Your task to perform on an android device: Go to accessibility settings Image 0: 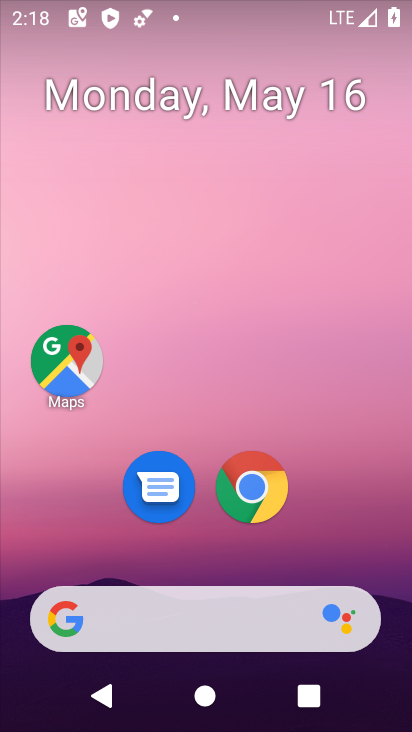
Step 0: drag from (322, 547) to (276, 20)
Your task to perform on an android device: Go to accessibility settings Image 1: 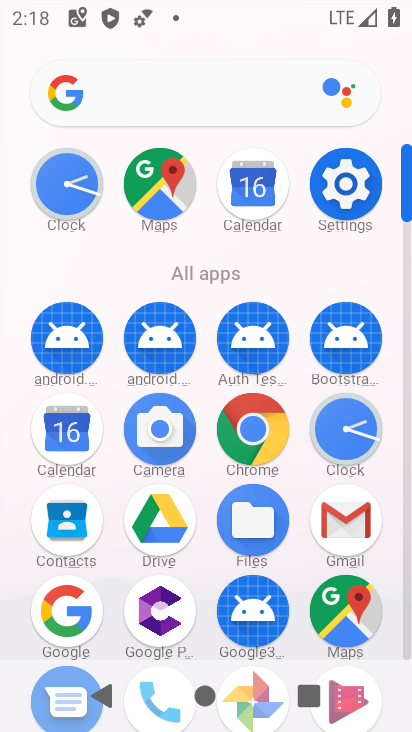
Step 1: click (346, 186)
Your task to perform on an android device: Go to accessibility settings Image 2: 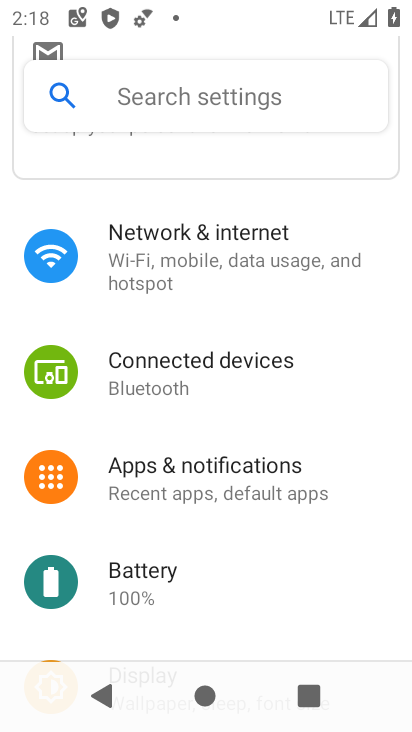
Step 2: drag from (208, 439) to (267, 339)
Your task to perform on an android device: Go to accessibility settings Image 3: 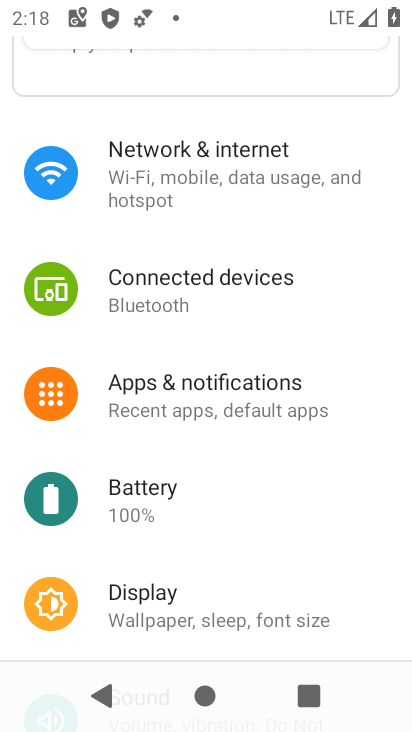
Step 3: drag from (164, 452) to (239, 352)
Your task to perform on an android device: Go to accessibility settings Image 4: 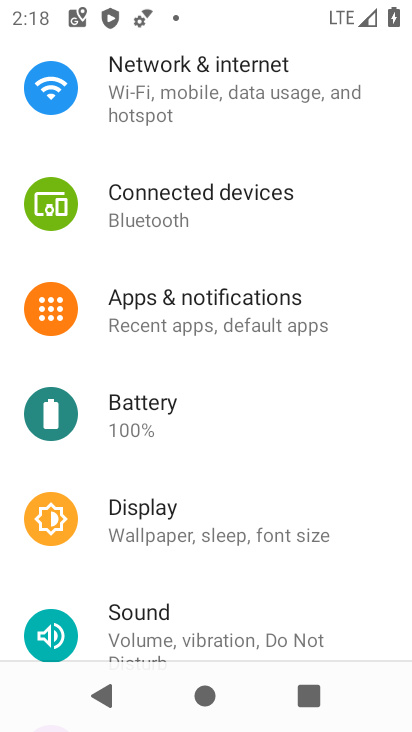
Step 4: drag from (144, 464) to (238, 345)
Your task to perform on an android device: Go to accessibility settings Image 5: 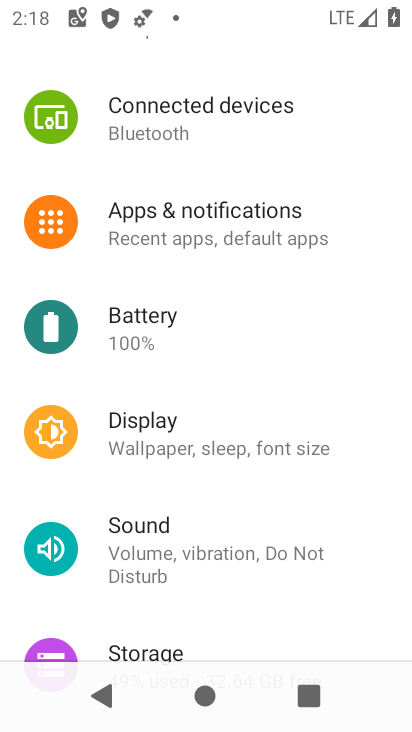
Step 5: drag from (147, 482) to (224, 375)
Your task to perform on an android device: Go to accessibility settings Image 6: 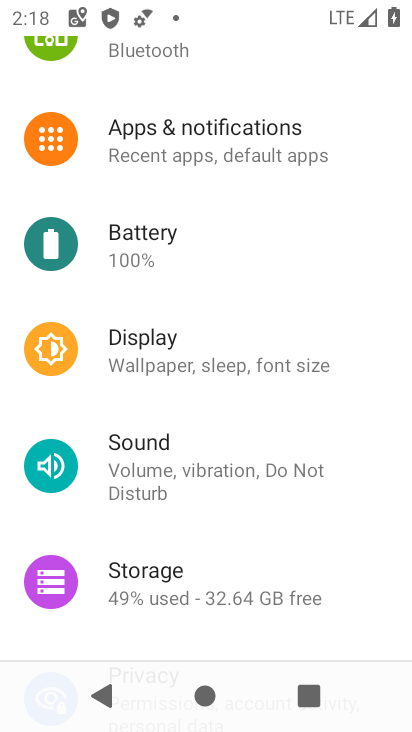
Step 6: drag from (143, 518) to (245, 377)
Your task to perform on an android device: Go to accessibility settings Image 7: 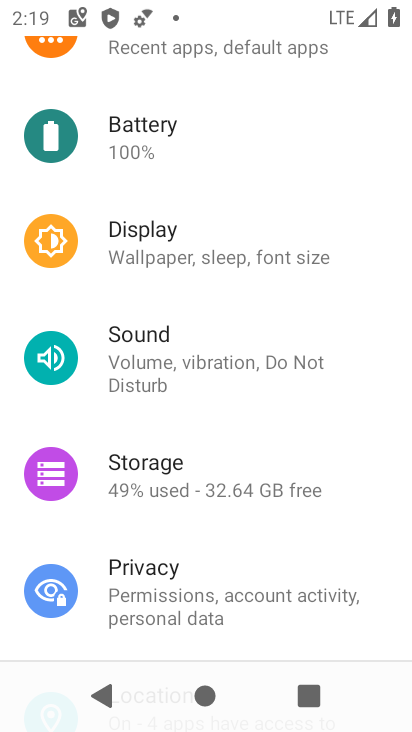
Step 7: drag from (114, 441) to (221, 304)
Your task to perform on an android device: Go to accessibility settings Image 8: 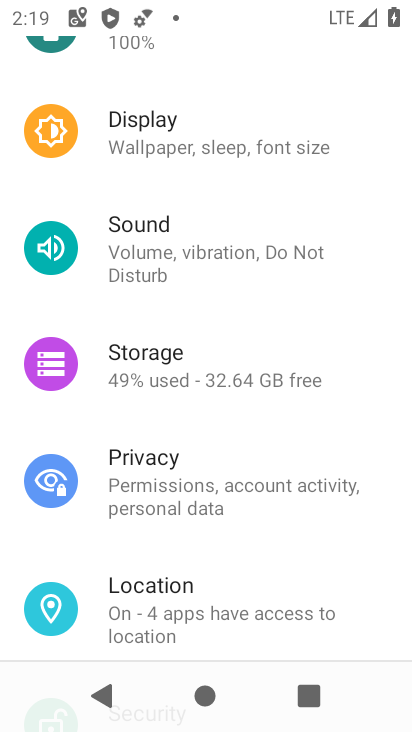
Step 8: drag from (133, 428) to (218, 270)
Your task to perform on an android device: Go to accessibility settings Image 9: 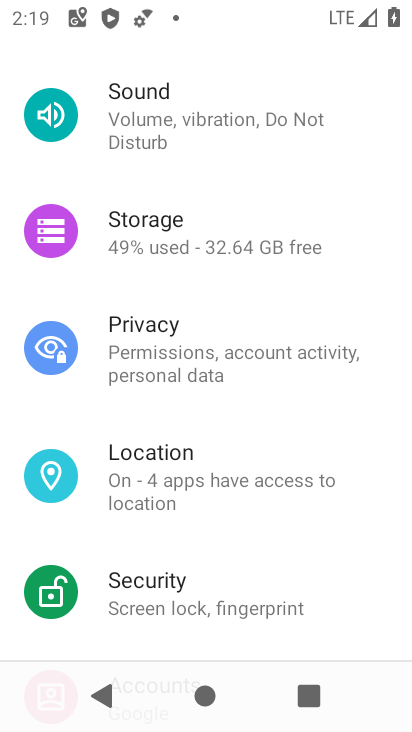
Step 9: drag from (140, 421) to (221, 298)
Your task to perform on an android device: Go to accessibility settings Image 10: 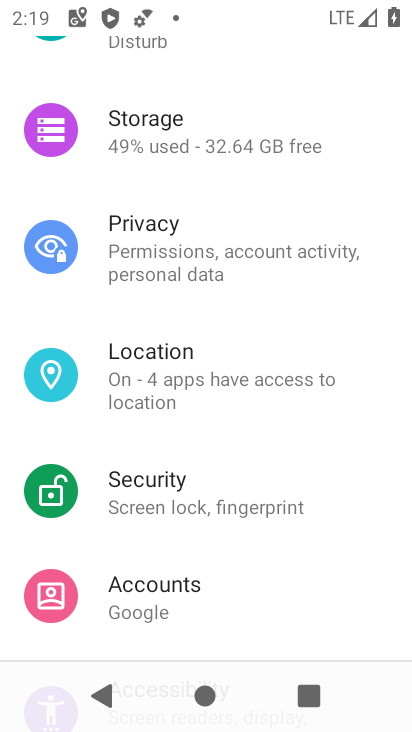
Step 10: drag from (131, 449) to (186, 359)
Your task to perform on an android device: Go to accessibility settings Image 11: 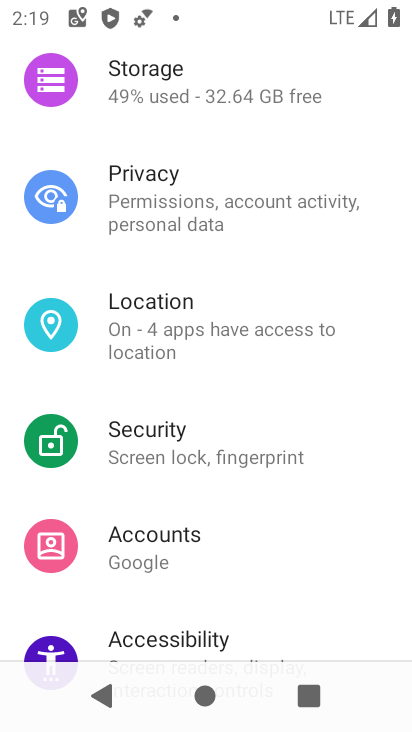
Step 11: drag from (129, 497) to (194, 382)
Your task to perform on an android device: Go to accessibility settings Image 12: 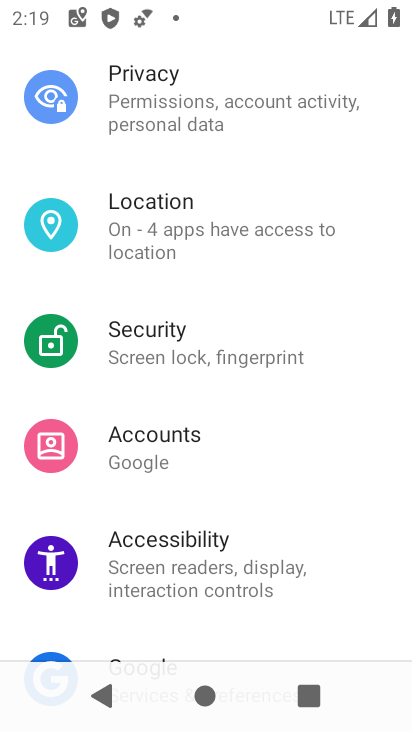
Step 12: drag from (127, 510) to (193, 399)
Your task to perform on an android device: Go to accessibility settings Image 13: 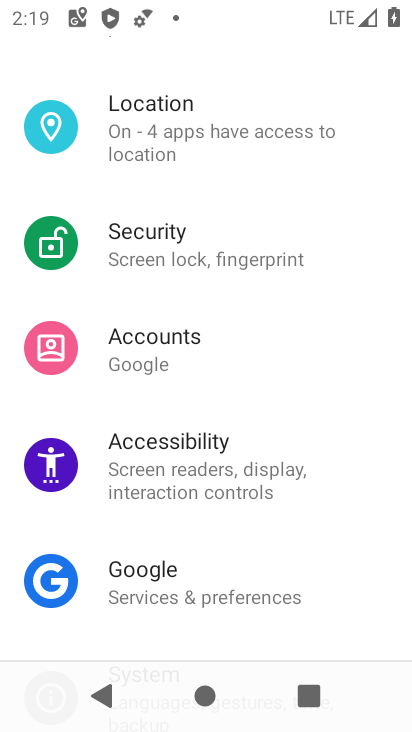
Step 13: click (177, 437)
Your task to perform on an android device: Go to accessibility settings Image 14: 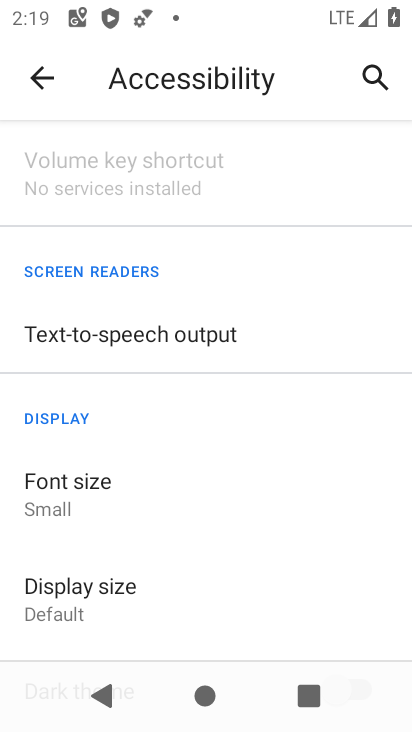
Step 14: task complete